Your task to perform on an android device: Go to Amazon Image 0: 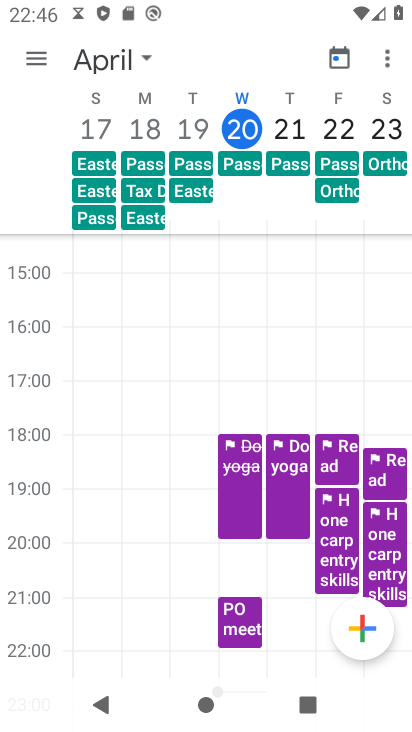
Step 0: press home button
Your task to perform on an android device: Go to Amazon Image 1: 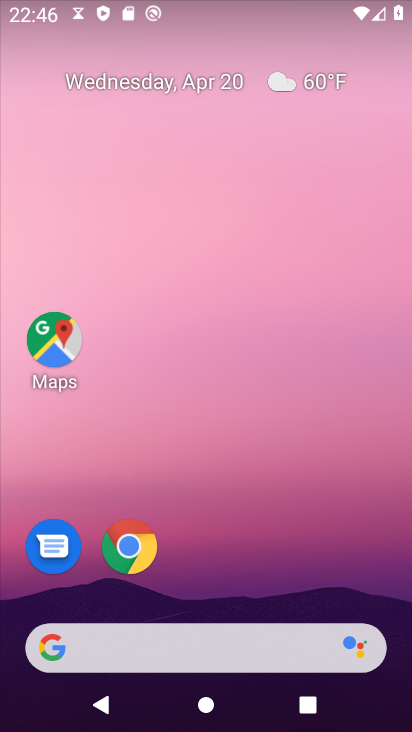
Step 1: click (126, 548)
Your task to perform on an android device: Go to Amazon Image 2: 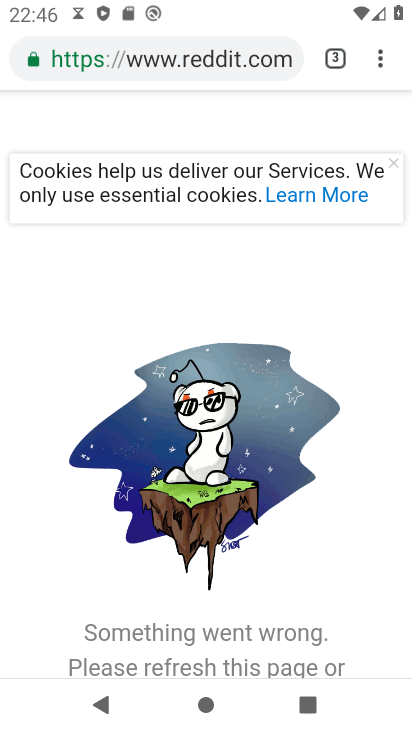
Step 2: click (331, 53)
Your task to perform on an android device: Go to Amazon Image 3: 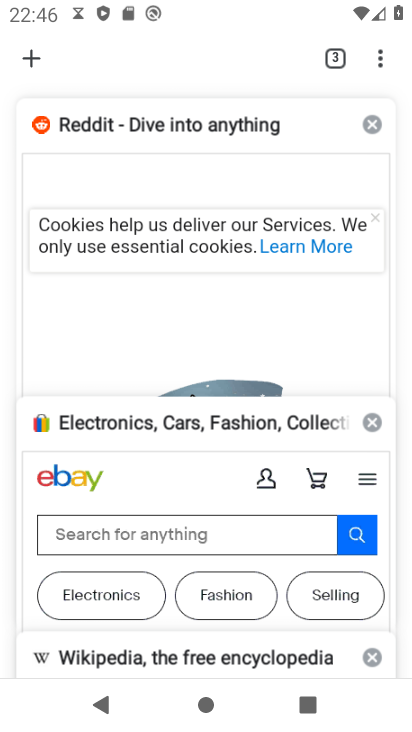
Step 3: click (32, 61)
Your task to perform on an android device: Go to Amazon Image 4: 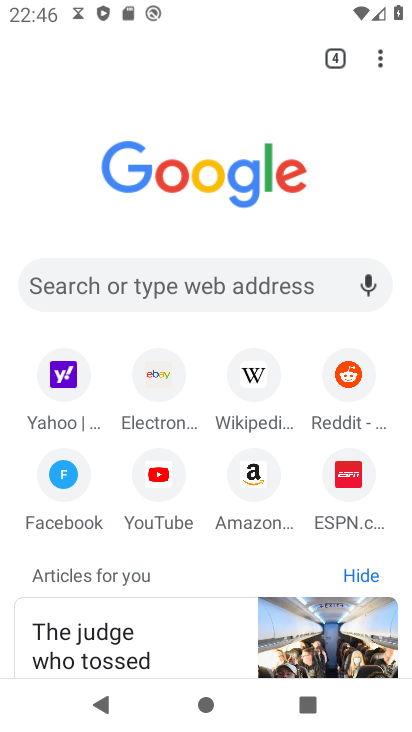
Step 4: click (254, 480)
Your task to perform on an android device: Go to Amazon Image 5: 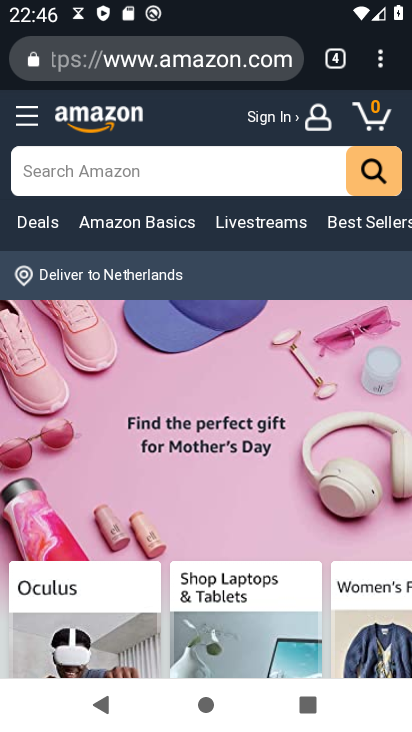
Step 5: task complete